Your task to perform on an android device: find which apps use the phone's location Image 0: 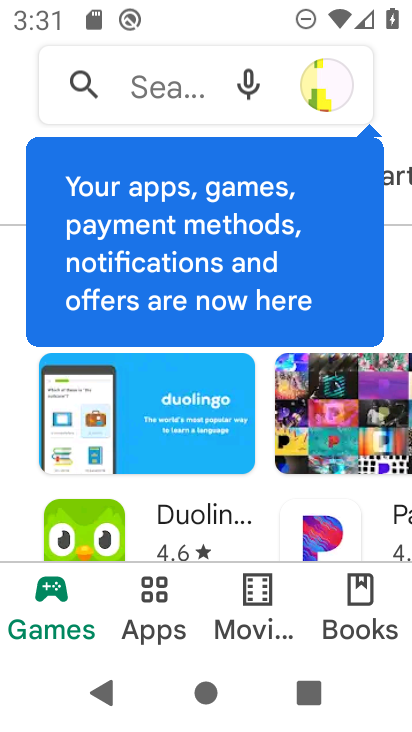
Step 0: press home button
Your task to perform on an android device: find which apps use the phone's location Image 1: 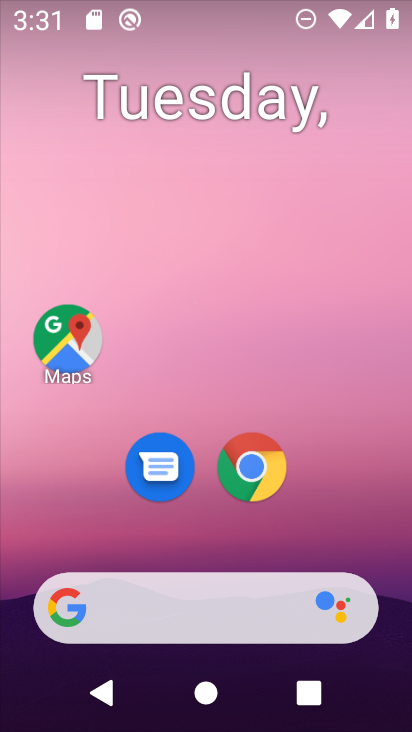
Step 1: drag from (196, 545) to (226, 15)
Your task to perform on an android device: find which apps use the phone's location Image 2: 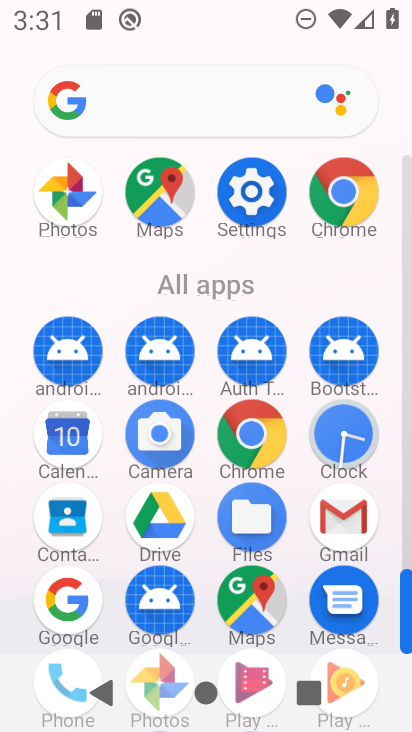
Step 2: click (260, 200)
Your task to perform on an android device: find which apps use the phone's location Image 3: 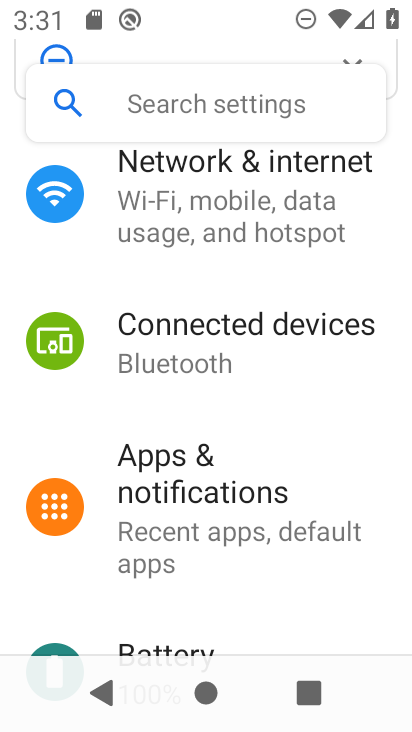
Step 3: click (164, 488)
Your task to perform on an android device: find which apps use the phone's location Image 4: 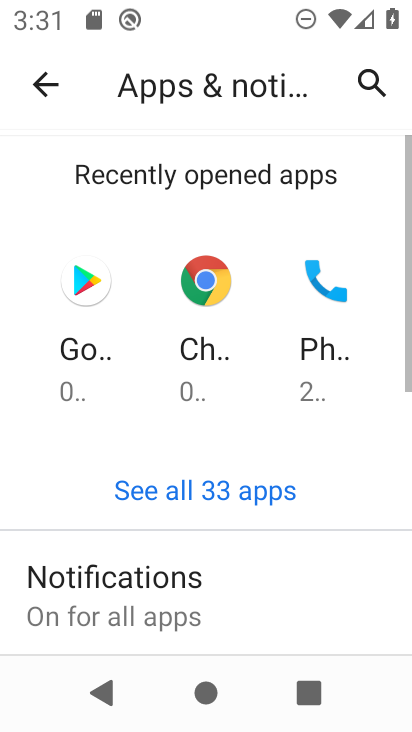
Step 4: drag from (163, 510) to (125, 0)
Your task to perform on an android device: find which apps use the phone's location Image 5: 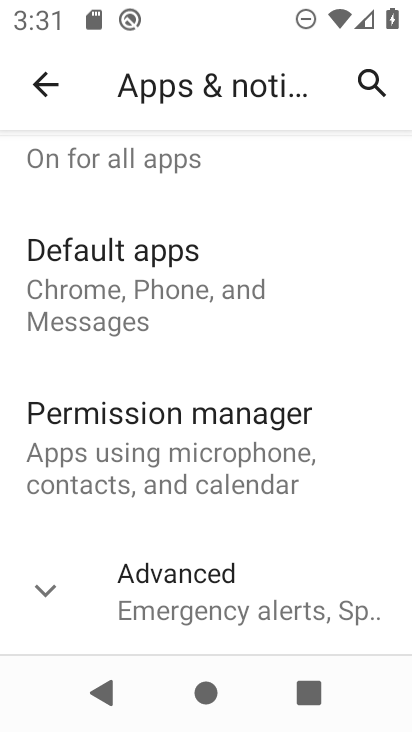
Step 5: press home button
Your task to perform on an android device: find which apps use the phone's location Image 6: 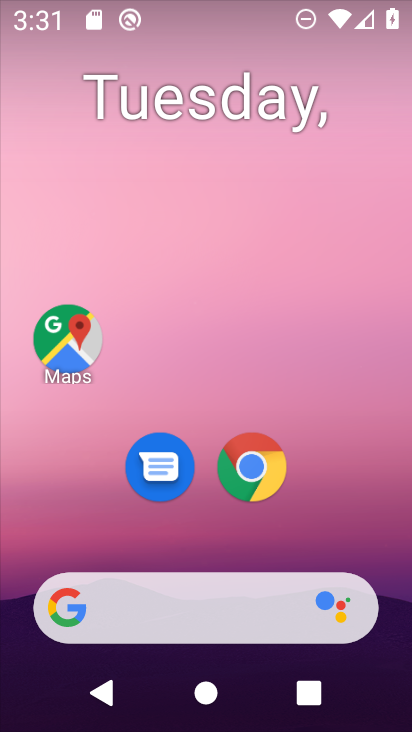
Step 6: drag from (184, 539) to (302, 32)
Your task to perform on an android device: find which apps use the phone's location Image 7: 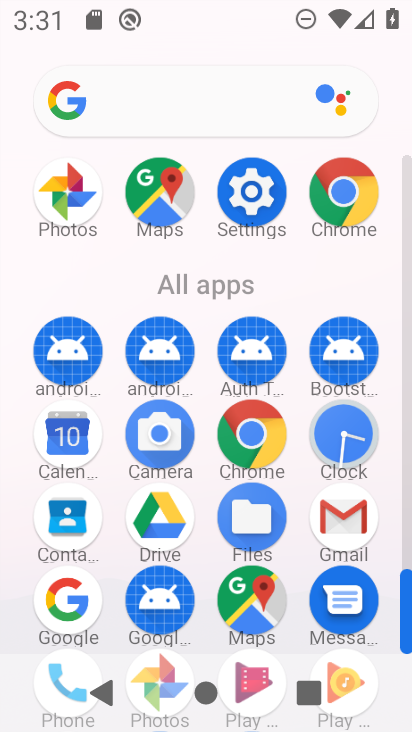
Step 7: click (234, 192)
Your task to perform on an android device: find which apps use the phone's location Image 8: 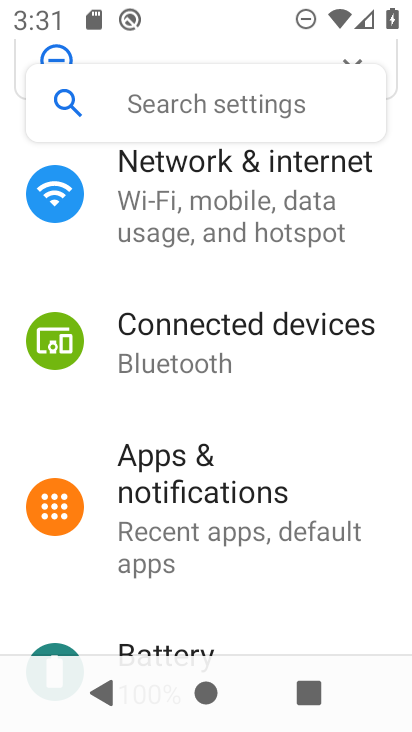
Step 8: drag from (217, 495) to (217, 116)
Your task to perform on an android device: find which apps use the phone's location Image 9: 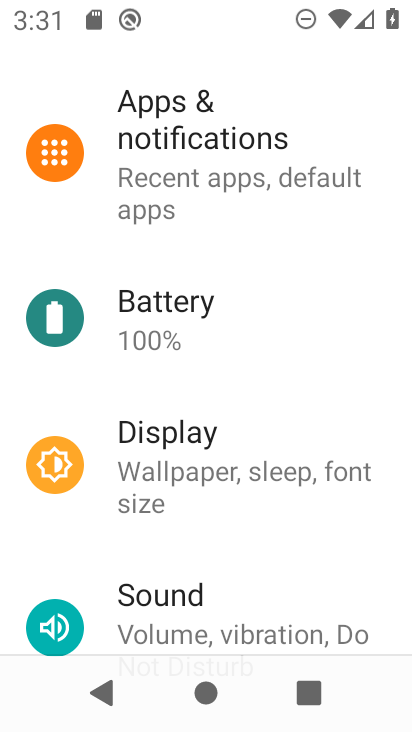
Step 9: drag from (257, 453) to (226, 201)
Your task to perform on an android device: find which apps use the phone's location Image 10: 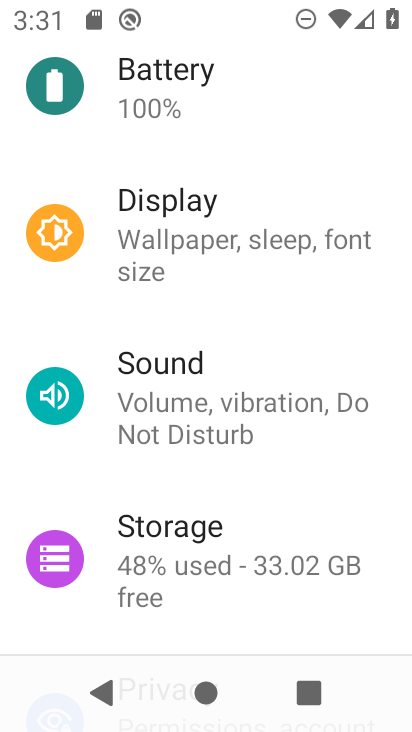
Step 10: drag from (220, 524) to (205, 149)
Your task to perform on an android device: find which apps use the phone's location Image 11: 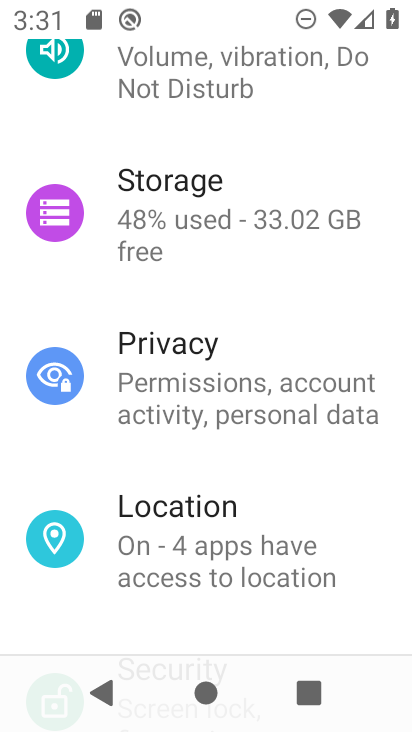
Step 11: click (197, 530)
Your task to perform on an android device: find which apps use the phone's location Image 12: 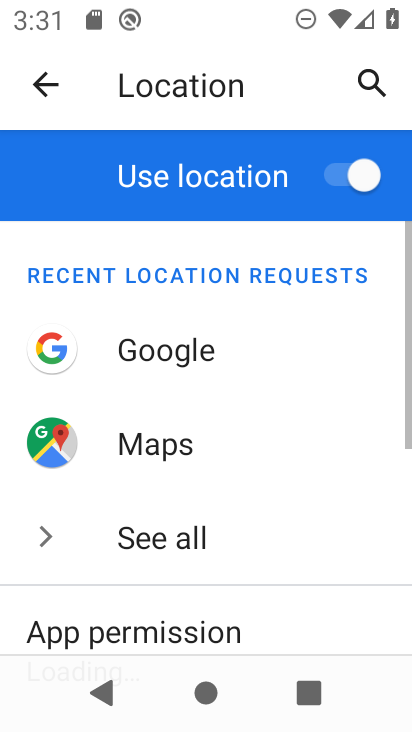
Step 12: drag from (196, 530) to (129, 29)
Your task to perform on an android device: find which apps use the phone's location Image 13: 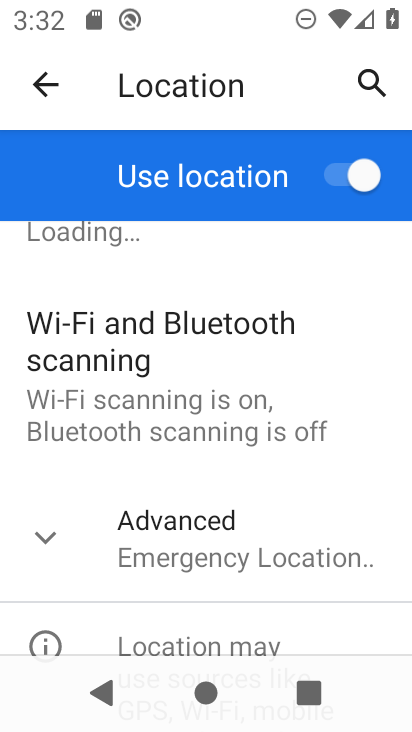
Step 13: click (165, 523)
Your task to perform on an android device: find which apps use the phone's location Image 14: 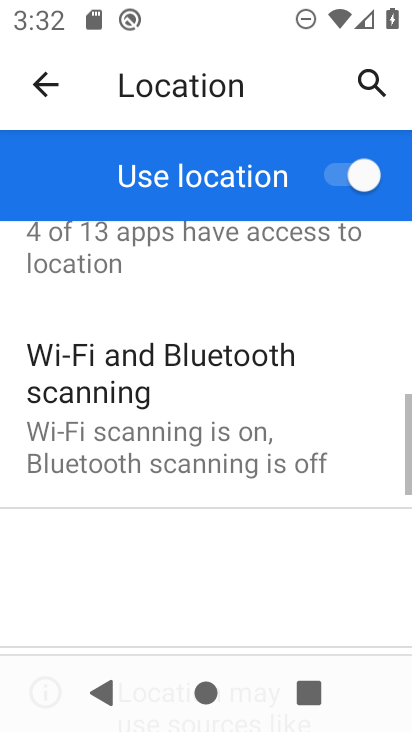
Step 14: task complete